Your task to perform on an android device: Open Android settings Image 0: 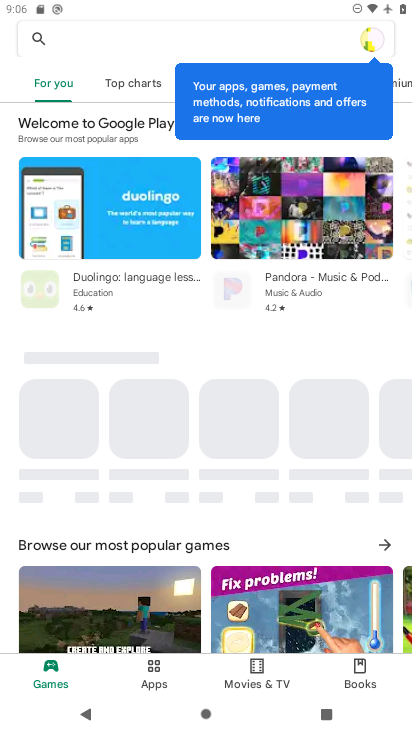
Step 0: press home button
Your task to perform on an android device: Open Android settings Image 1: 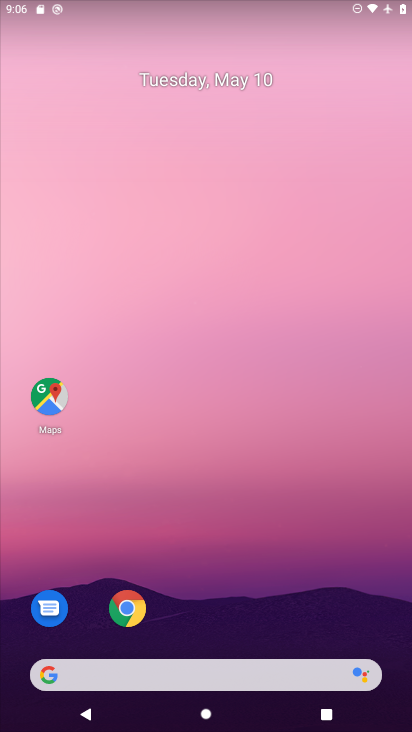
Step 1: drag from (225, 606) to (257, 228)
Your task to perform on an android device: Open Android settings Image 2: 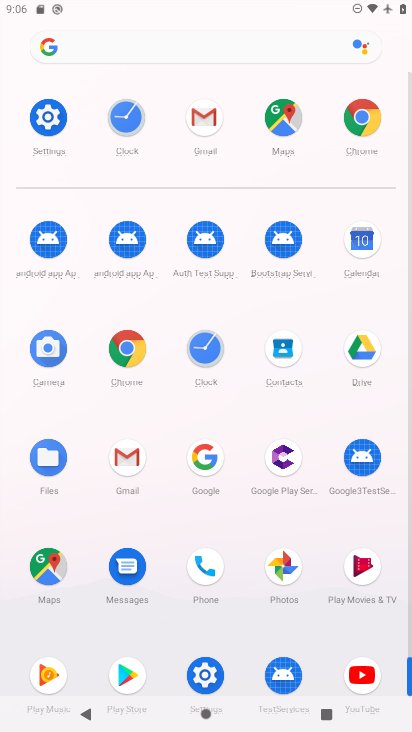
Step 2: click (43, 105)
Your task to perform on an android device: Open Android settings Image 3: 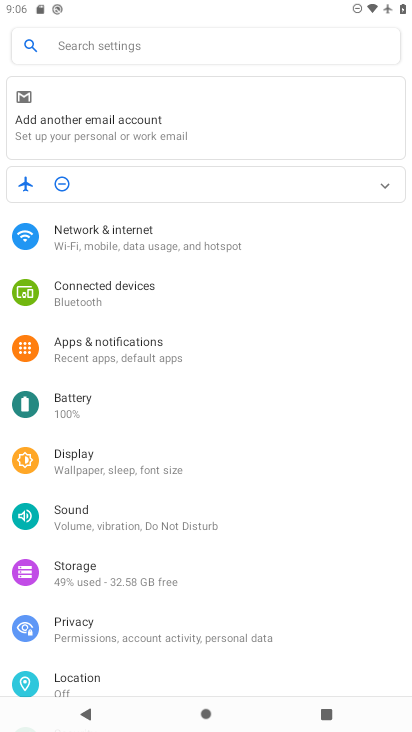
Step 3: task complete